Your task to perform on an android device: find which apps use the phone's location Image 0: 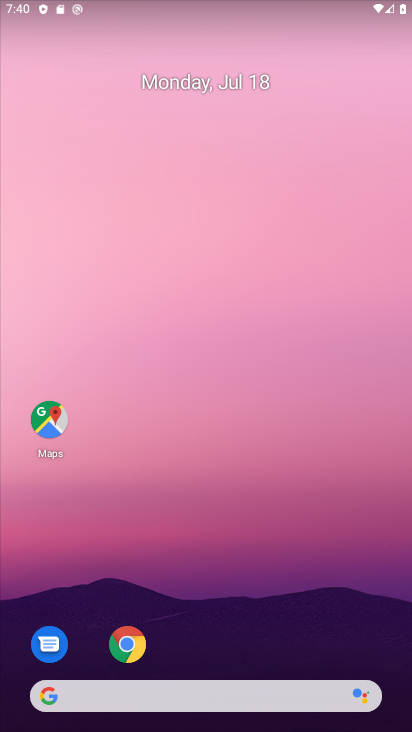
Step 0: drag from (226, 651) to (240, 26)
Your task to perform on an android device: find which apps use the phone's location Image 1: 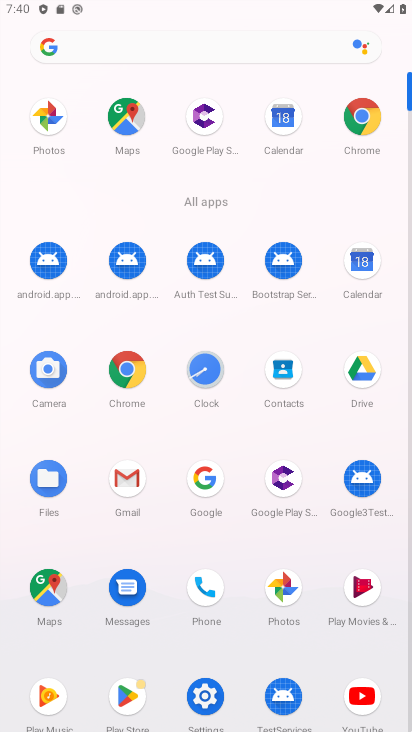
Step 1: click (202, 691)
Your task to perform on an android device: find which apps use the phone's location Image 2: 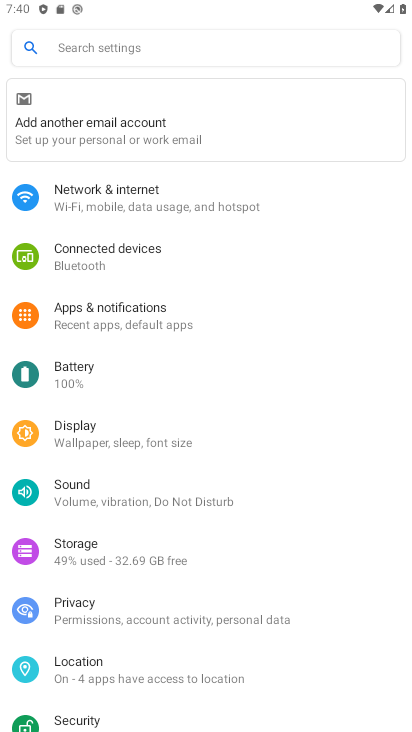
Step 2: click (109, 658)
Your task to perform on an android device: find which apps use the phone's location Image 3: 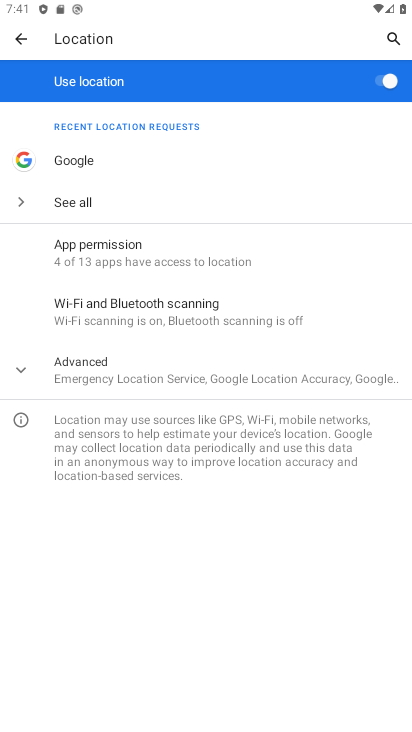
Step 3: click (114, 250)
Your task to perform on an android device: find which apps use the phone's location Image 4: 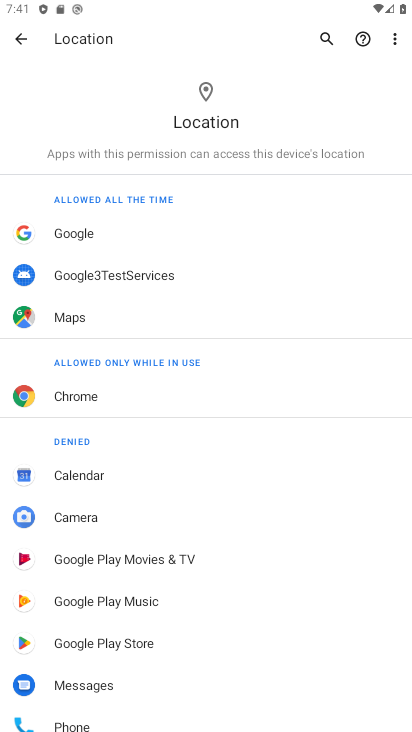
Step 4: task complete